Your task to perform on an android device: Open maps Image 0: 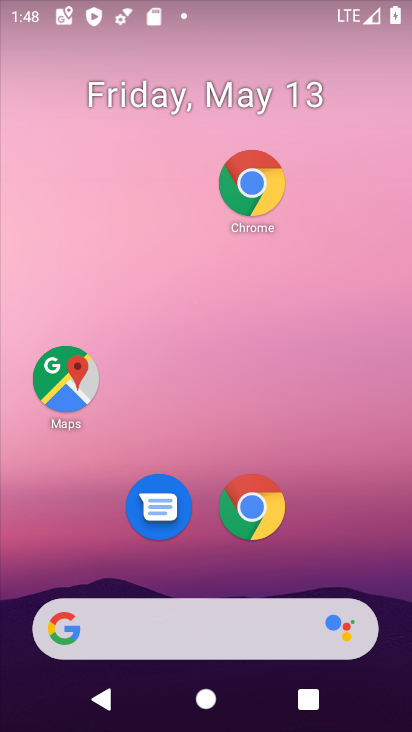
Step 0: press back button
Your task to perform on an android device: Open maps Image 1: 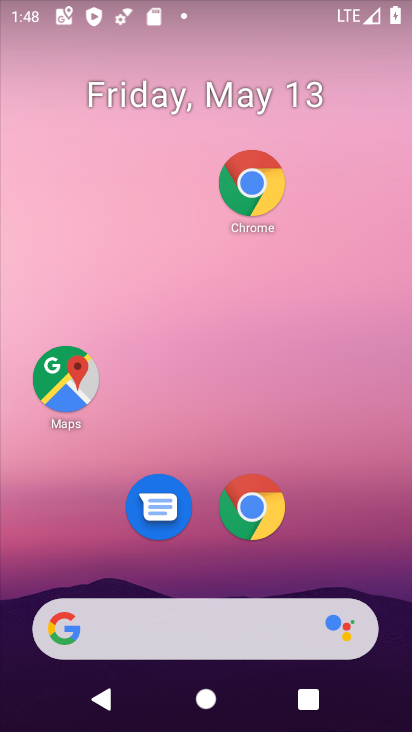
Step 1: drag from (309, 421) to (249, 219)
Your task to perform on an android device: Open maps Image 2: 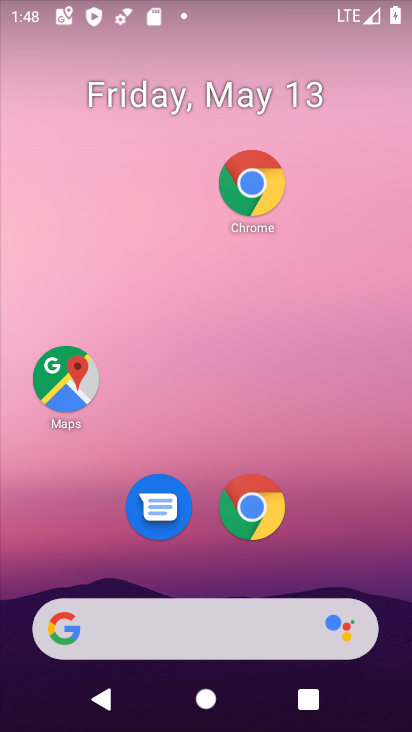
Step 2: drag from (324, 553) to (174, 180)
Your task to perform on an android device: Open maps Image 3: 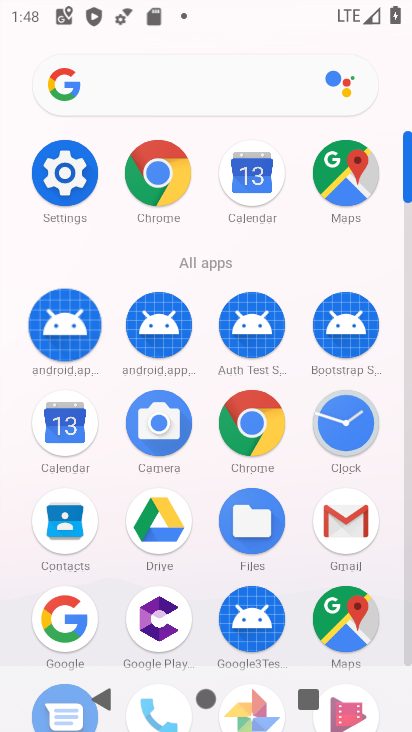
Step 3: click (353, 187)
Your task to perform on an android device: Open maps Image 4: 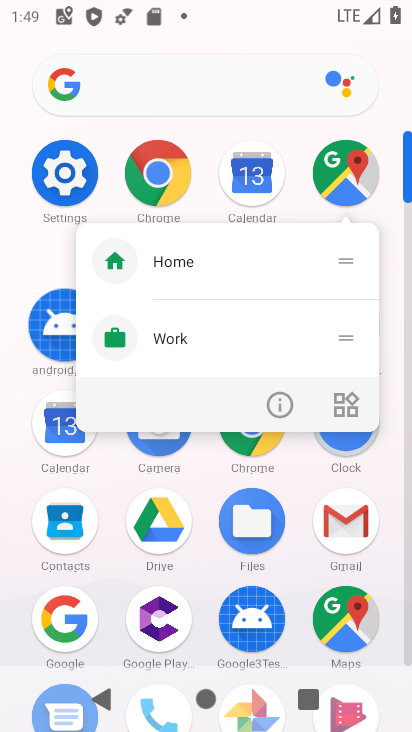
Step 4: click (353, 178)
Your task to perform on an android device: Open maps Image 5: 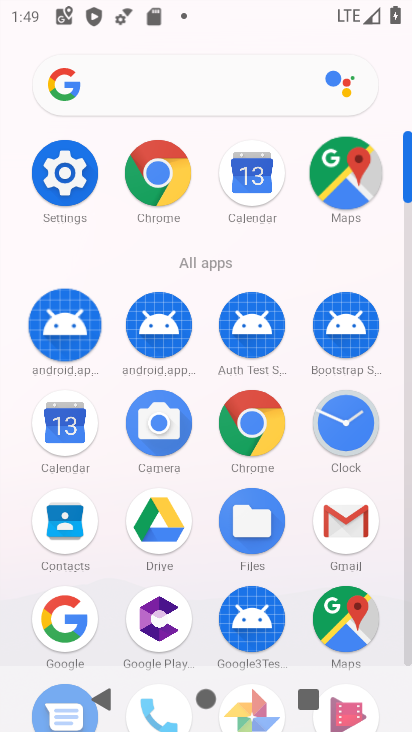
Step 5: click (353, 178)
Your task to perform on an android device: Open maps Image 6: 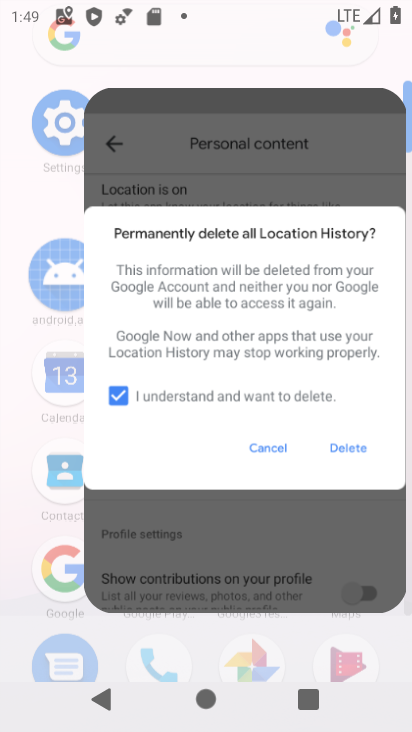
Step 6: click (353, 179)
Your task to perform on an android device: Open maps Image 7: 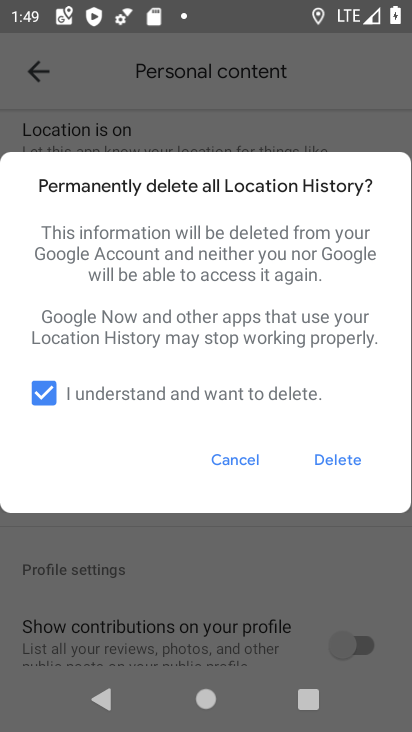
Step 7: click (251, 453)
Your task to perform on an android device: Open maps Image 8: 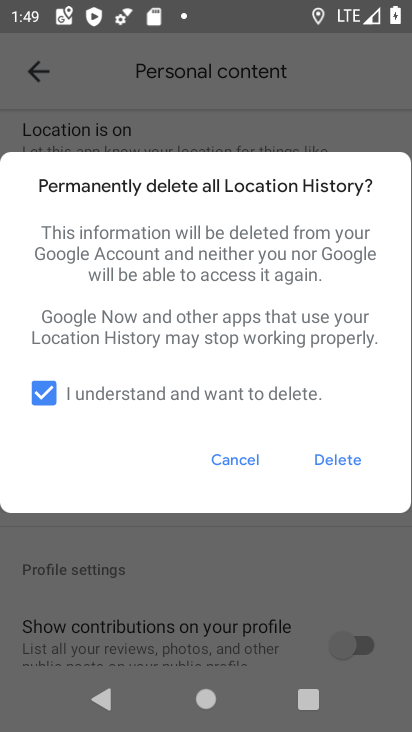
Step 8: click (251, 454)
Your task to perform on an android device: Open maps Image 9: 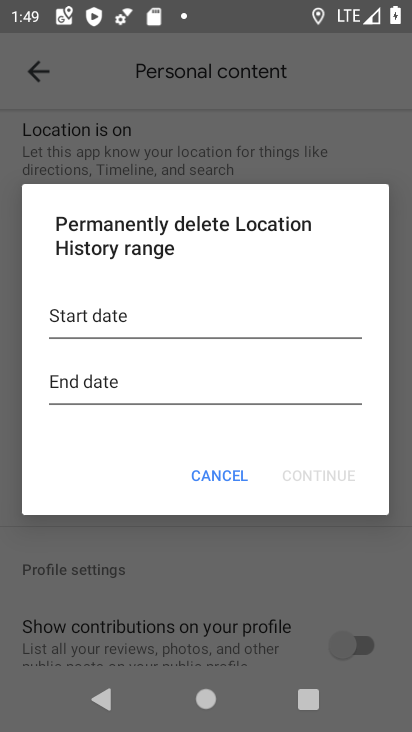
Step 9: click (226, 478)
Your task to perform on an android device: Open maps Image 10: 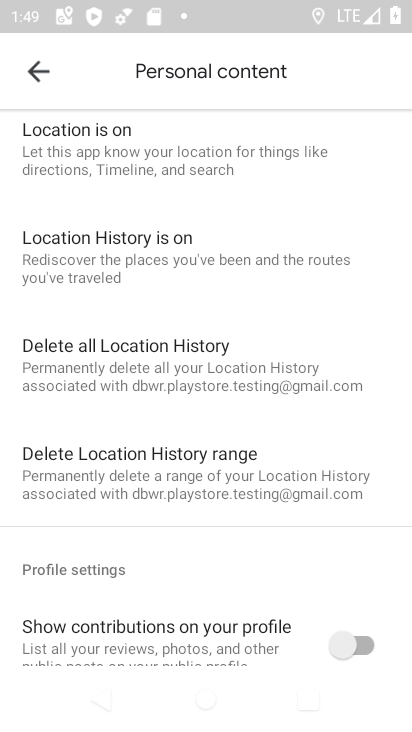
Step 10: click (226, 478)
Your task to perform on an android device: Open maps Image 11: 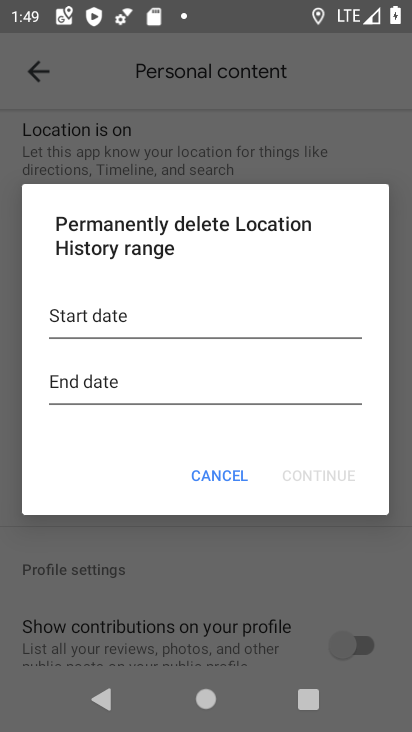
Step 11: task complete